Your task to perform on an android device: turn on javascript in the chrome app Image 0: 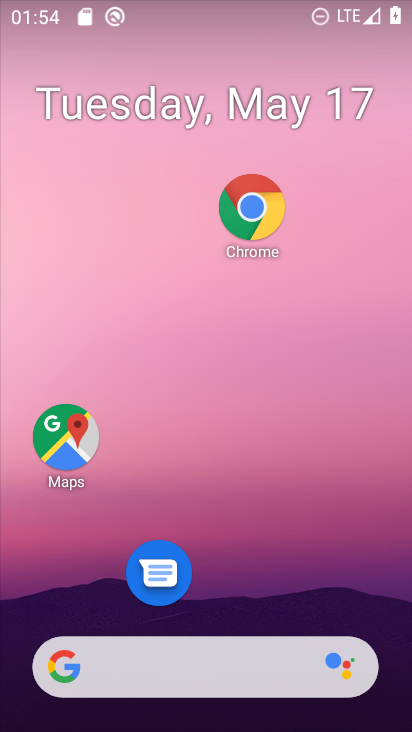
Step 0: drag from (275, 647) to (327, 18)
Your task to perform on an android device: turn on javascript in the chrome app Image 1: 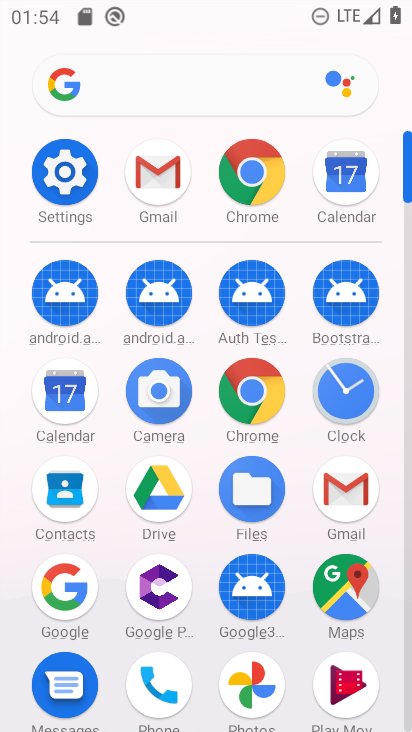
Step 1: click (261, 404)
Your task to perform on an android device: turn on javascript in the chrome app Image 2: 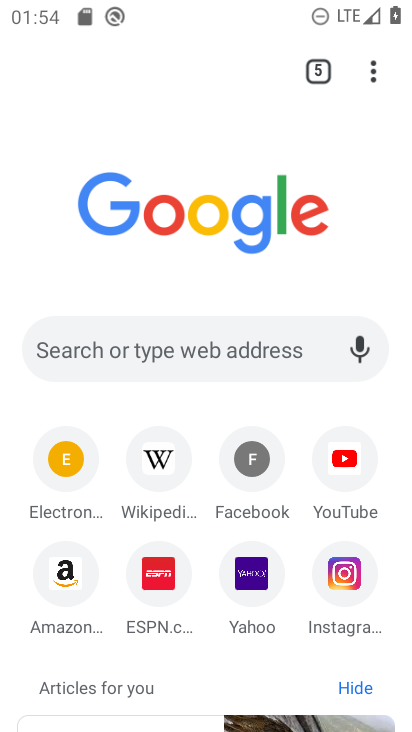
Step 2: click (376, 76)
Your task to perform on an android device: turn on javascript in the chrome app Image 3: 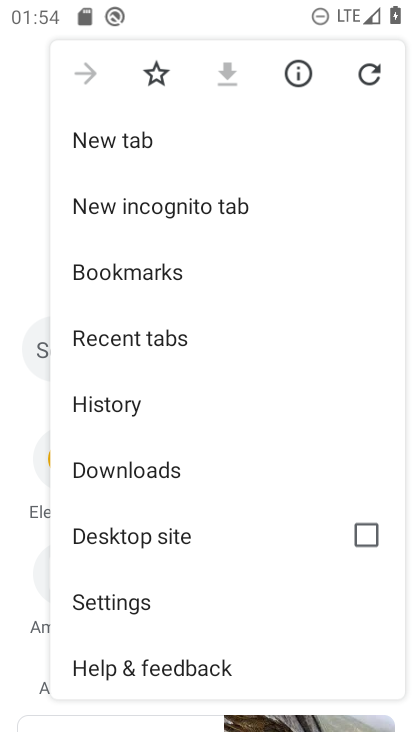
Step 3: click (202, 608)
Your task to perform on an android device: turn on javascript in the chrome app Image 4: 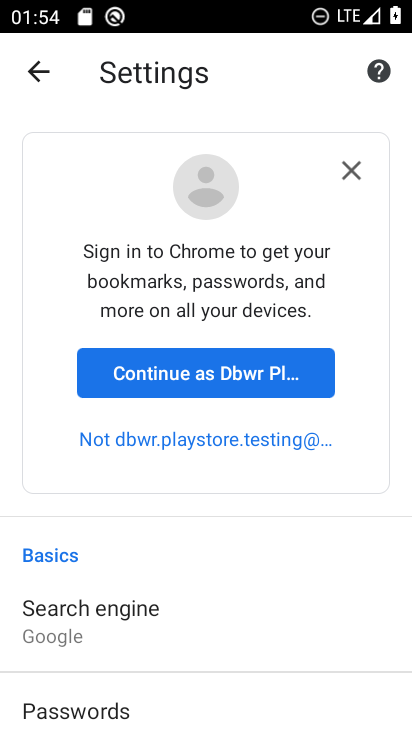
Step 4: drag from (240, 655) to (285, 17)
Your task to perform on an android device: turn on javascript in the chrome app Image 5: 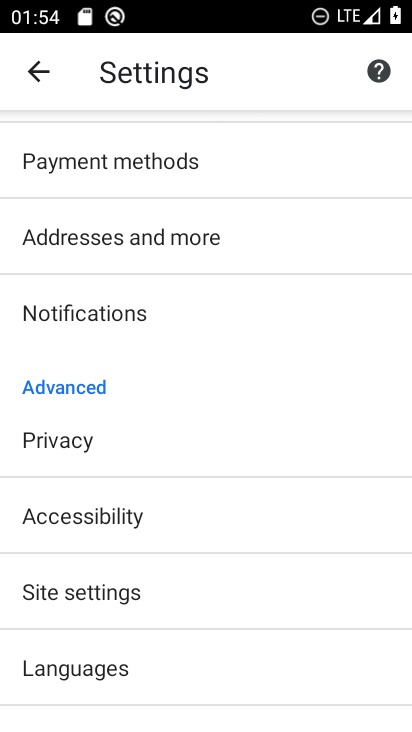
Step 5: click (149, 605)
Your task to perform on an android device: turn on javascript in the chrome app Image 6: 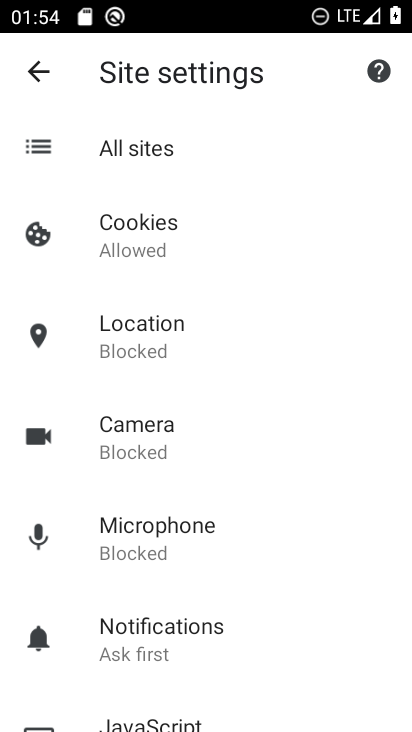
Step 6: drag from (206, 666) to (262, 185)
Your task to perform on an android device: turn on javascript in the chrome app Image 7: 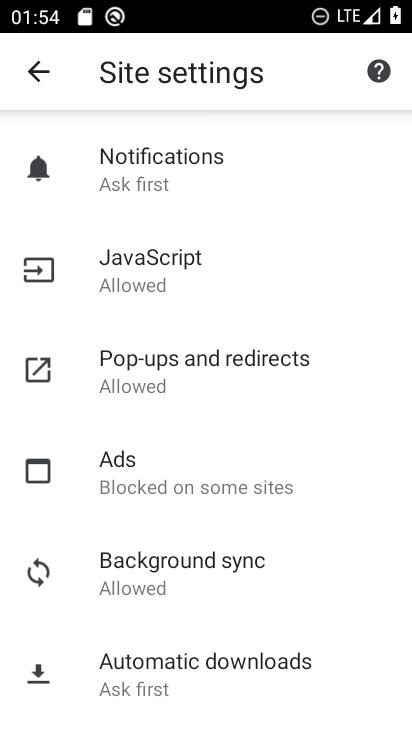
Step 7: click (218, 267)
Your task to perform on an android device: turn on javascript in the chrome app Image 8: 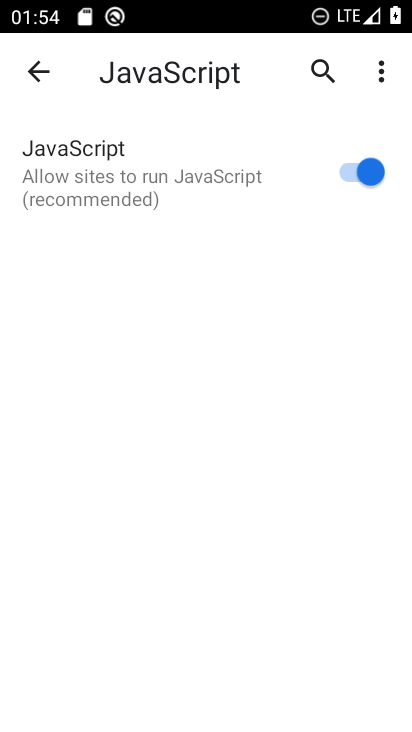
Step 8: task complete